Your task to perform on an android device: Go to Yahoo.com Image 0: 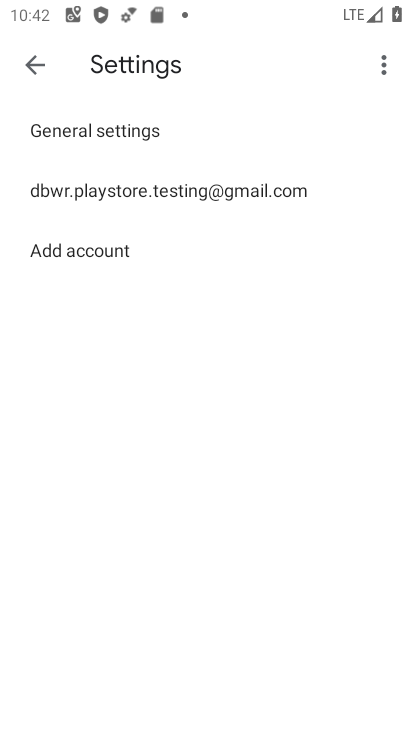
Step 0: press home button
Your task to perform on an android device: Go to Yahoo.com Image 1: 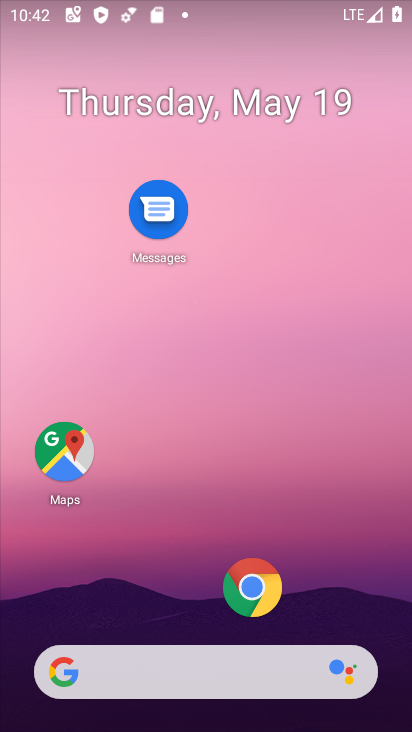
Step 1: drag from (212, 85) to (195, 10)
Your task to perform on an android device: Go to Yahoo.com Image 2: 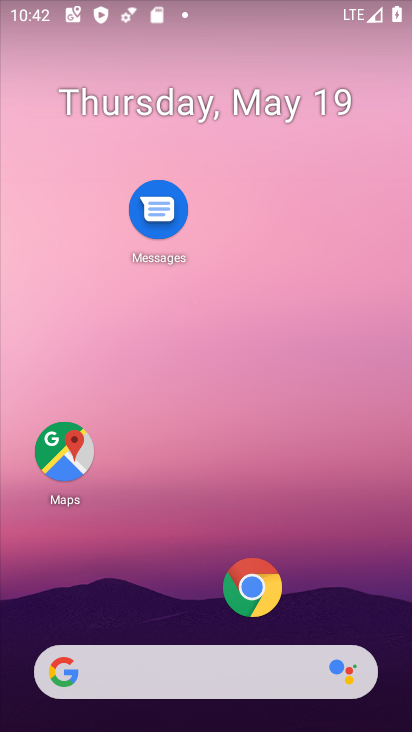
Step 2: click (265, 583)
Your task to perform on an android device: Go to Yahoo.com Image 3: 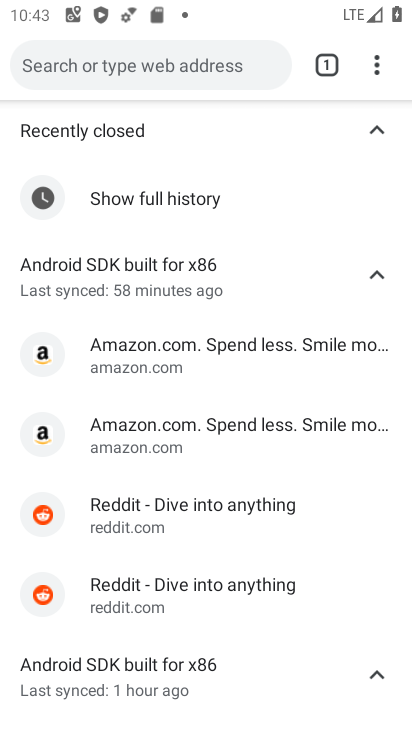
Step 3: click (333, 78)
Your task to perform on an android device: Go to Yahoo.com Image 4: 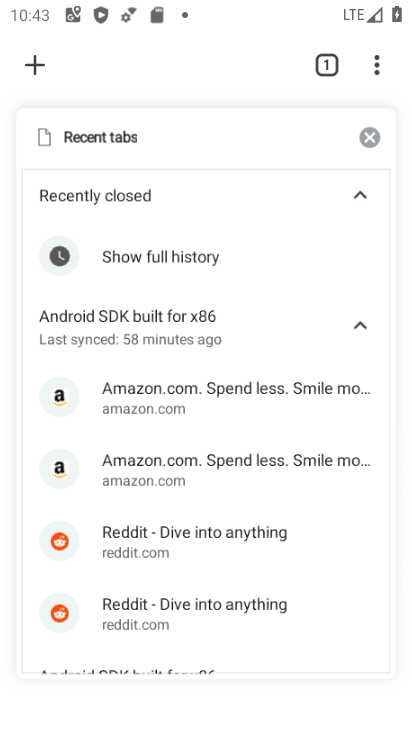
Step 4: click (34, 62)
Your task to perform on an android device: Go to Yahoo.com Image 5: 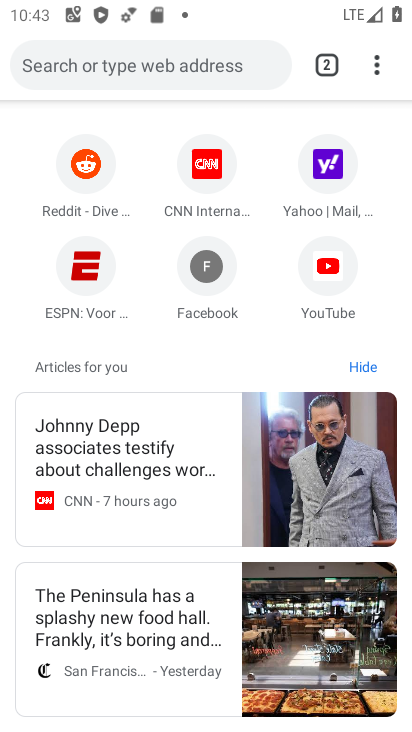
Step 5: click (328, 154)
Your task to perform on an android device: Go to Yahoo.com Image 6: 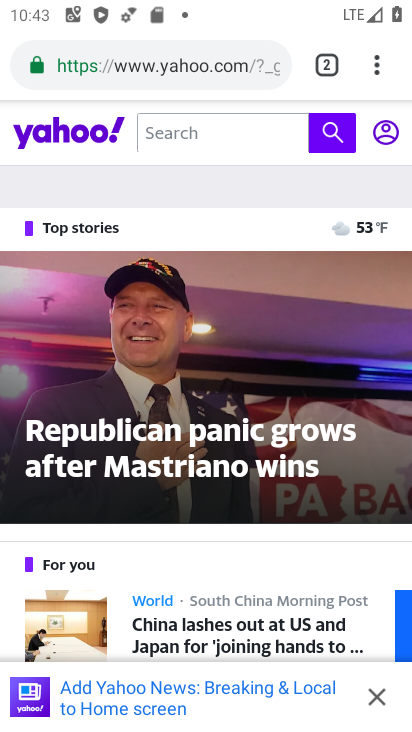
Step 6: task complete